Your task to perform on an android device: Go to Maps Image 0: 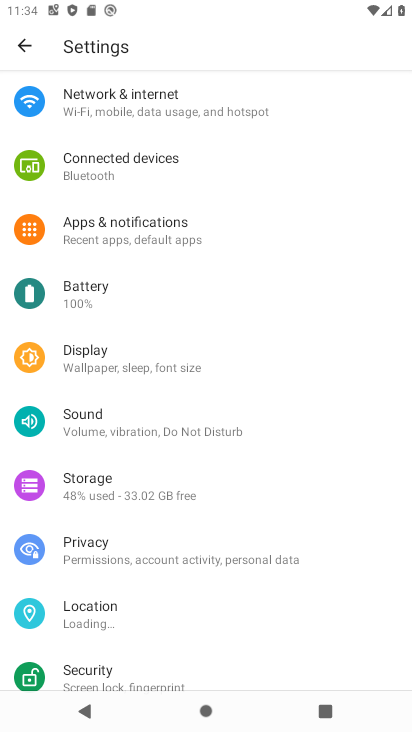
Step 0: press home button
Your task to perform on an android device: Go to Maps Image 1: 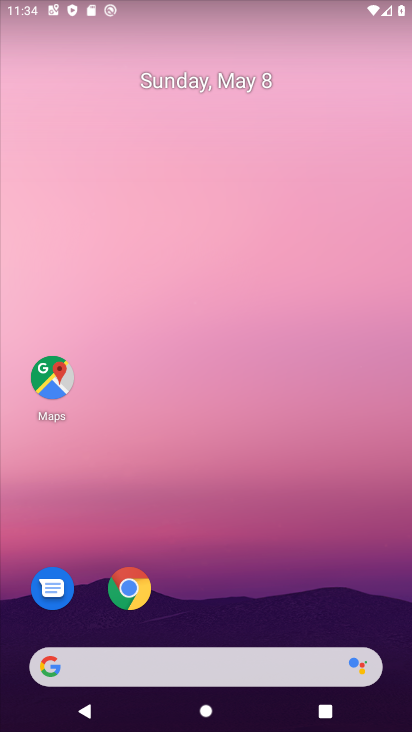
Step 1: click (46, 387)
Your task to perform on an android device: Go to Maps Image 2: 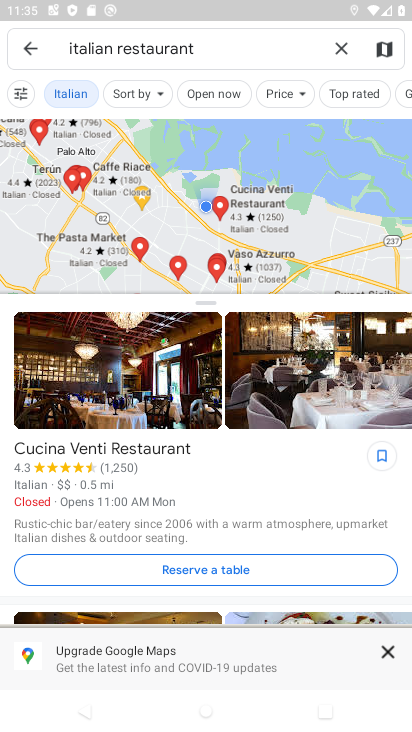
Step 2: task complete